Your task to perform on an android device: empty trash in the gmail app Image 0: 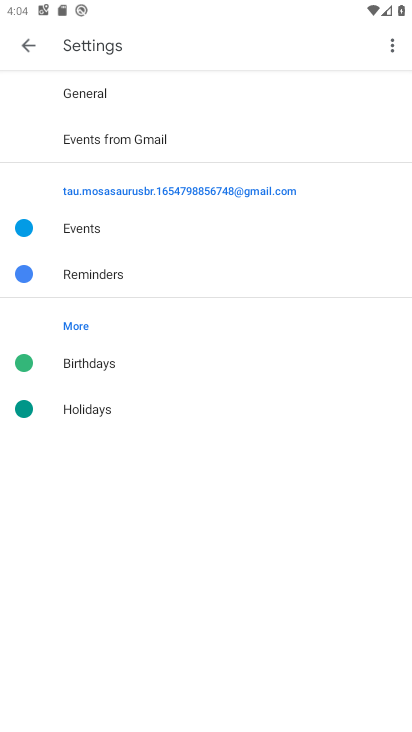
Step 0: drag from (269, 545) to (287, 68)
Your task to perform on an android device: empty trash in the gmail app Image 1: 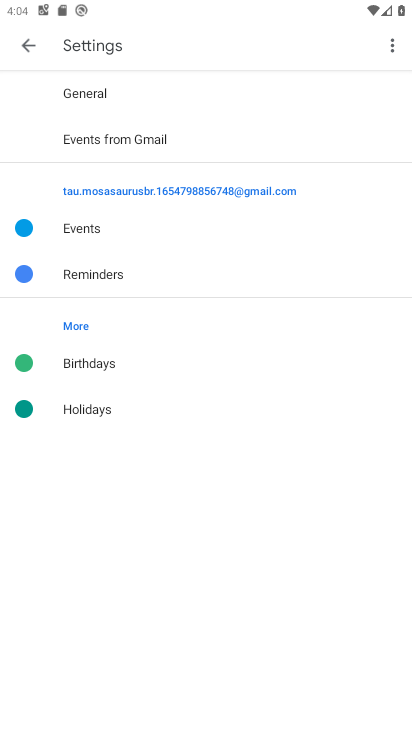
Step 1: press home button
Your task to perform on an android device: empty trash in the gmail app Image 2: 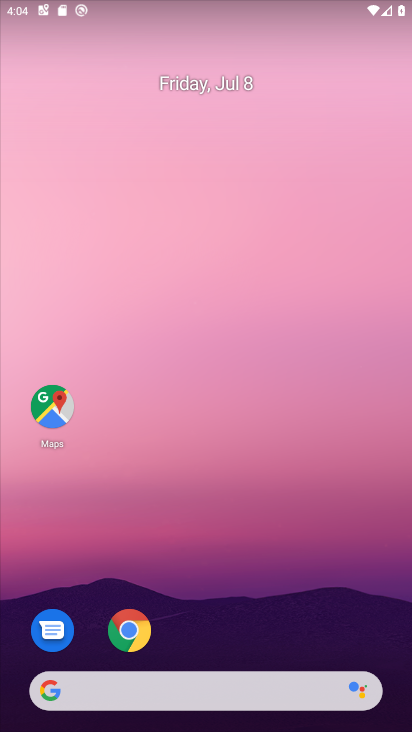
Step 2: drag from (249, 598) to (254, 46)
Your task to perform on an android device: empty trash in the gmail app Image 3: 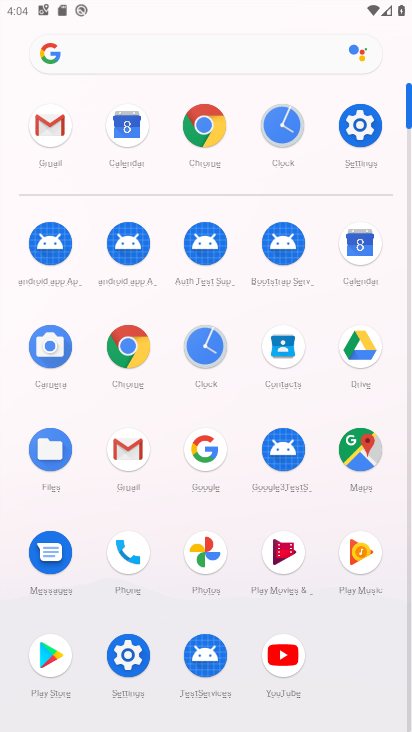
Step 3: click (40, 128)
Your task to perform on an android device: empty trash in the gmail app Image 4: 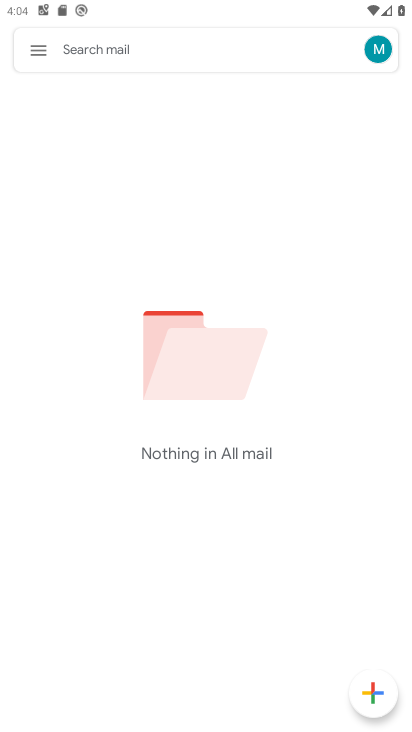
Step 4: click (35, 45)
Your task to perform on an android device: empty trash in the gmail app Image 5: 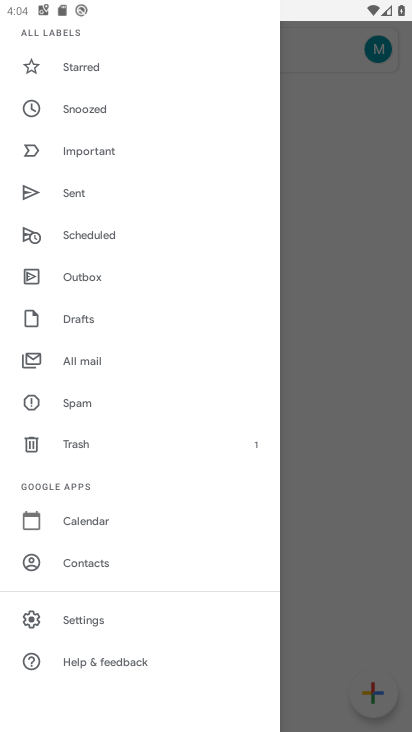
Step 5: click (68, 445)
Your task to perform on an android device: empty trash in the gmail app Image 6: 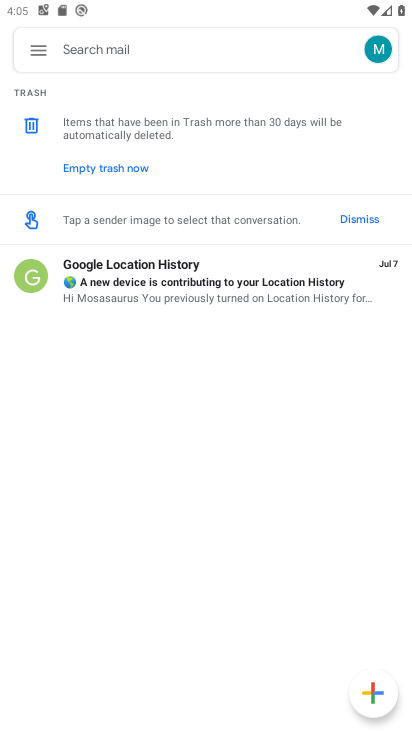
Step 6: click (88, 166)
Your task to perform on an android device: empty trash in the gmail app Image 7: 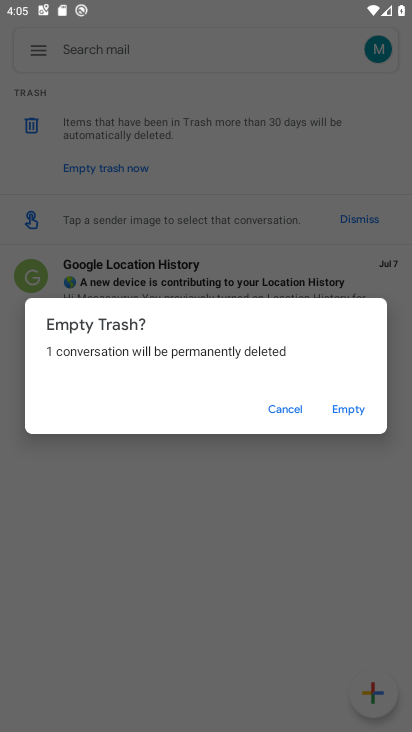
Step 7: click (341, 407)
Your task to perform on an android device: empty trash in the gmail app Image 8: 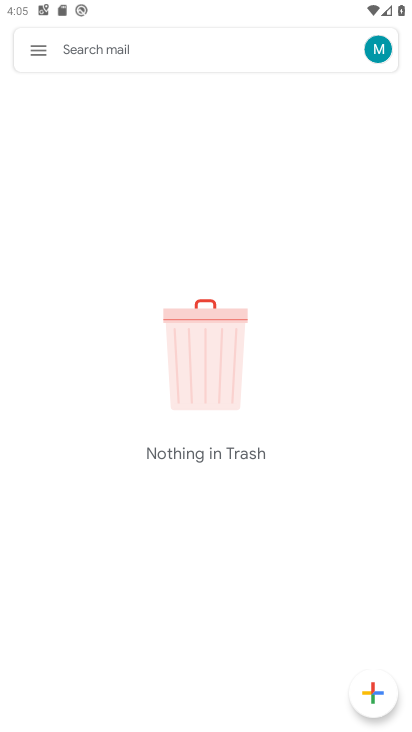
Step 8: task complete